Your task to perform on an android device: clear all cookies in the chrome app Image 0: 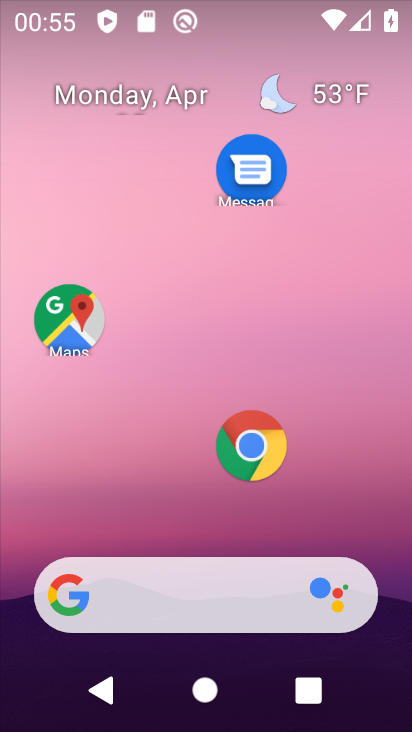
Step 0: drag from (181, 532) to (281, 112)
Your task to perform on an android device: clear all cookies in the chrome app Image 1: 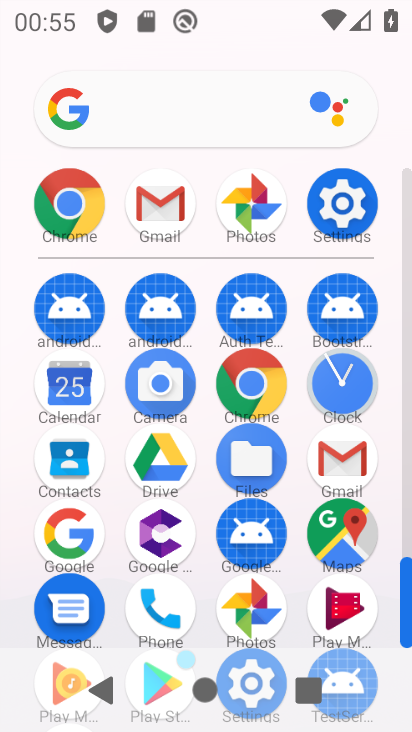
Step 1: click (214, 358)
Your task to perform on an android device: clear all cookies in the chrome app Image 2: 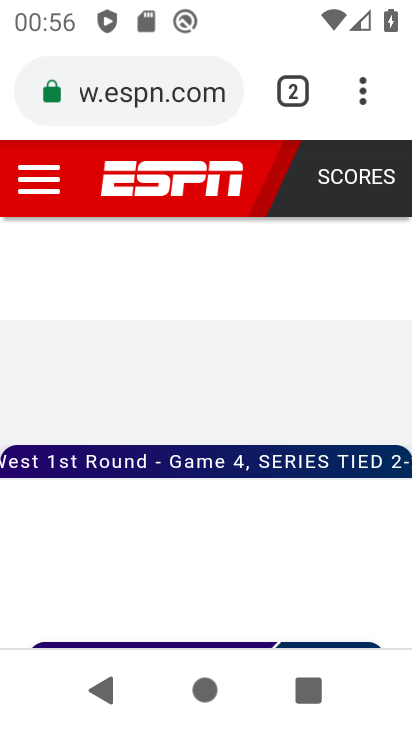
Step 2: click (367, 103)
Your task to perform on an android device: clear all cookies in the chrome app Image 3: 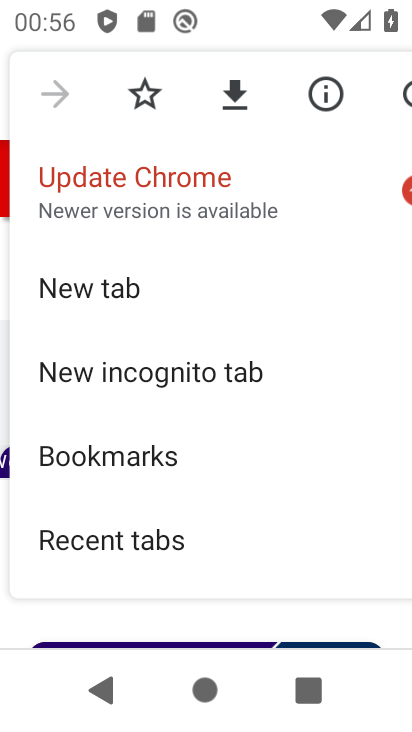
Step 3: drag from (185, 445) to (221, 200)
Your task to perform on an android device: clear all cookies in the chrome app Image 4: 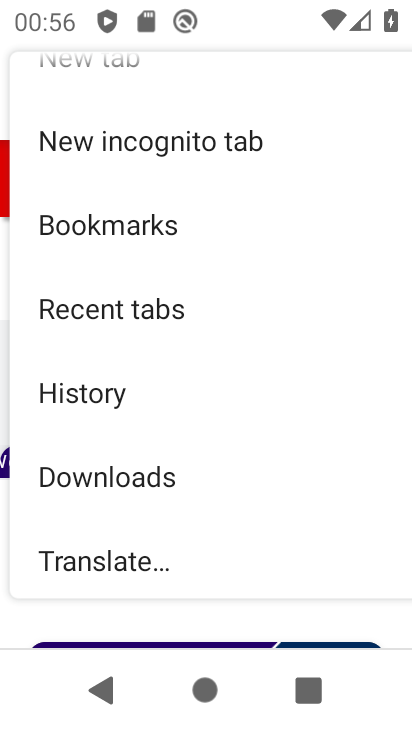
Step 4: drag from (155, 479) to (225, 159)
Your task to perform on an android device: clear all cookies in the chrome app Image 5: 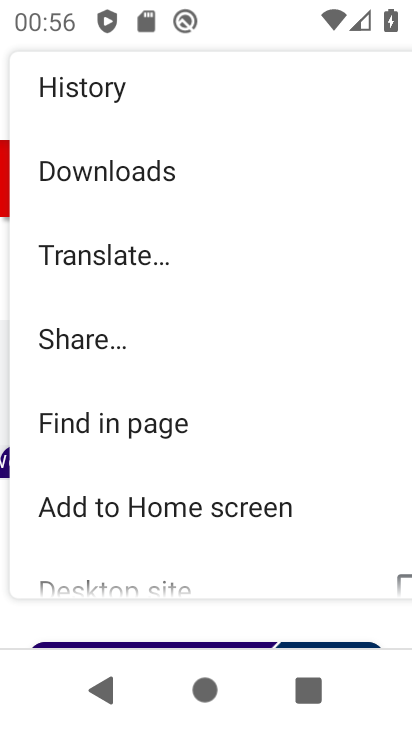
Step 5: drag from (169, 509) to (281, 86)
Your task to perform on an android device: clear all cookies in the chrome app Image 6: 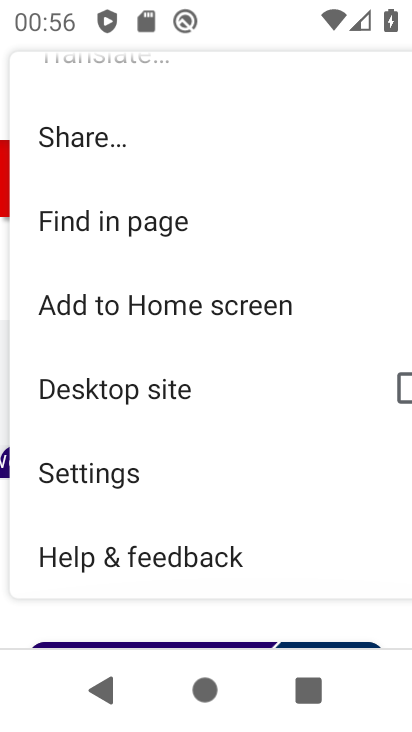
Step 6: drag from (275, 147) to (237, 618)
Your task to perform on an android device: clear all cookies in the chrome app Image 7: 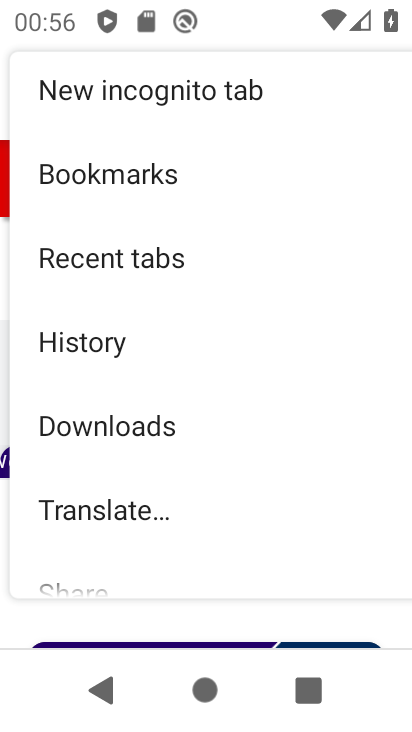
Step 7: drag from (220, 266) to (198, 536)
Your task to perform on an android device: clear all cookies in the chrome app Image 8: 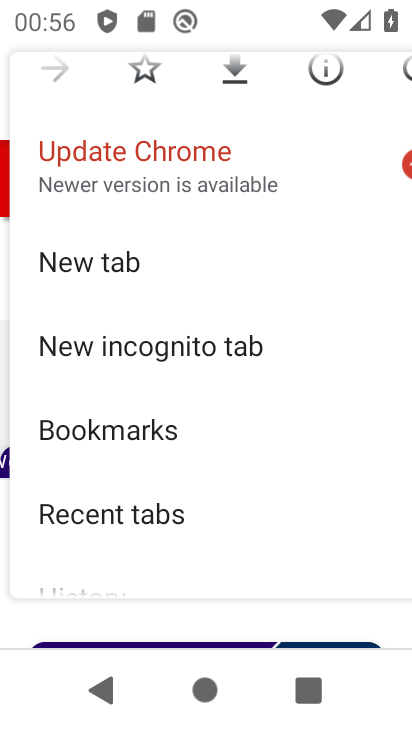
Step 8: drag from (197, 288) to (142, 554)
Your task to perform on an android device: clear all cookies in the chrome app Image 9: 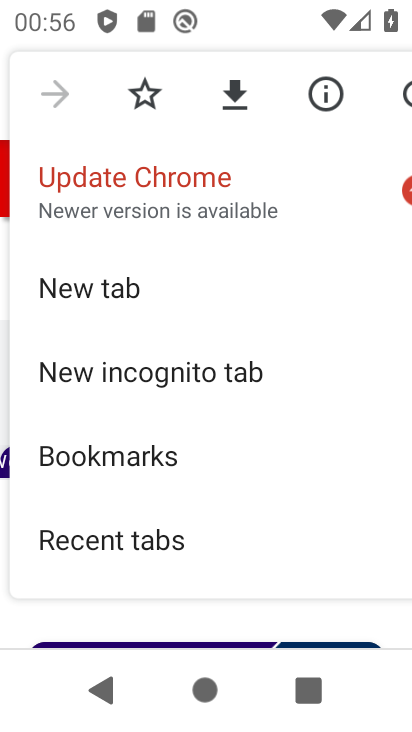
Step 9: drag from (158, 514) to (240, 248)
Your task to perform on an android device: clear all cookies in the chrome app Image 10: 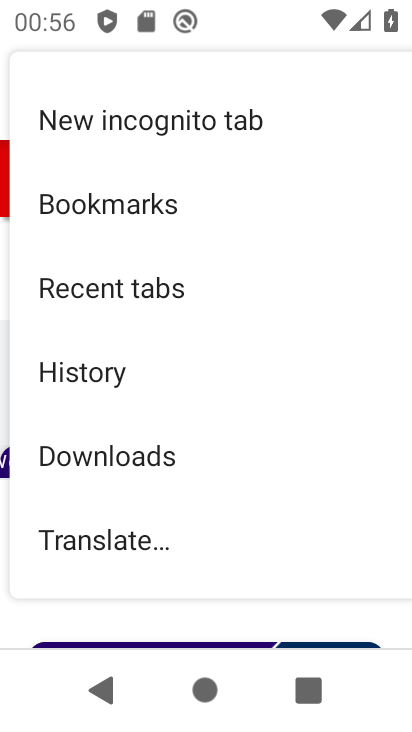
Step 10: click (157, 382)
Your task to perform on an android device: clear all cookies in the chrome app Image 11: 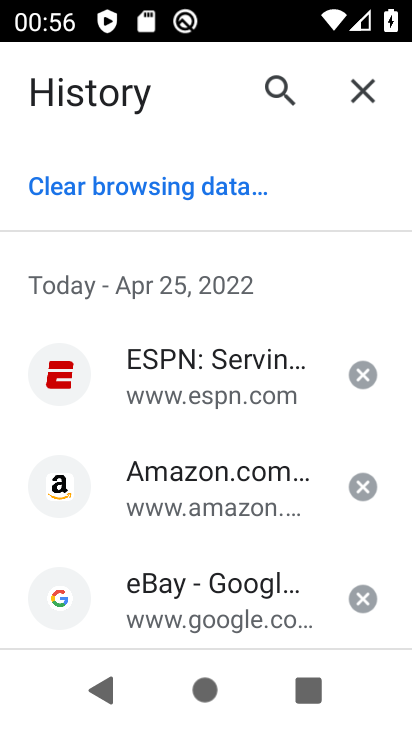
Step 11: click (185, 198)
Your task to perform on an android device: clear all cookies in the chrome app Image 12: 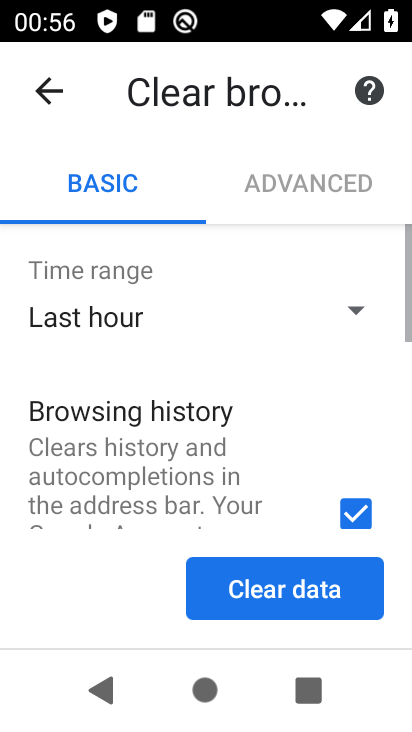
Step 12: drag from (173, 462) to (237, 277)
Your task to perform on an android device: clear all cookies in the chrome app Image 13: 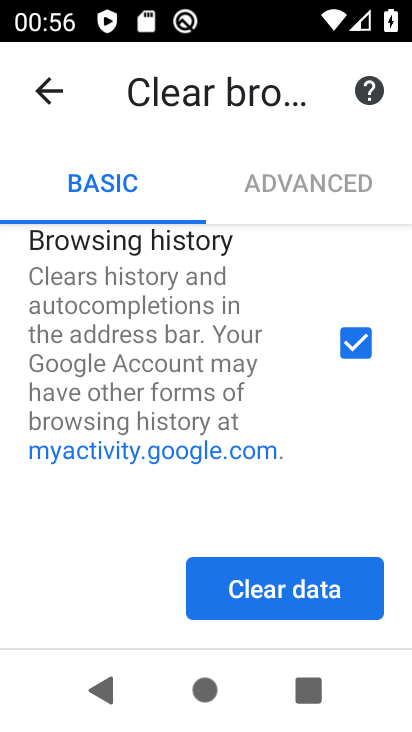
Step 13: click (308, 340)
Your task to perform on an android device: clear all cookies in the chrome app Image 14: 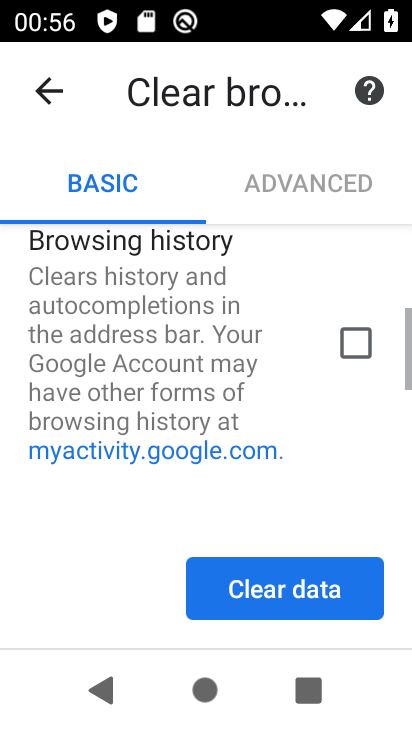
Step 14: drag from (207, 469) to (297, 147)
Your task to perform on an android device: clear all cookies in the chrome app Image 15: 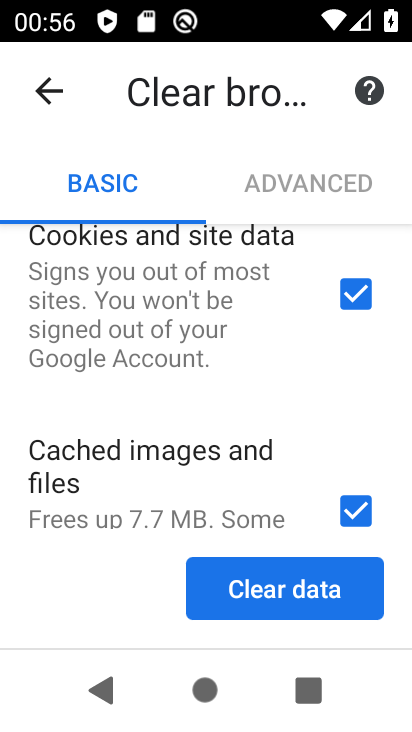
Step 15: click (257, 482)
Your task to perform on an android device: clear all cookies in the chrome app Image 16: 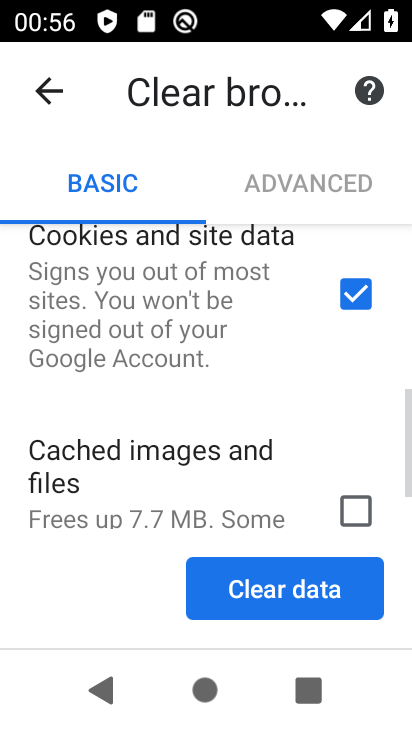
Step 16: click (284, 589)
Your task to perform on an android device: clear all cookies in the chrome app Image 17: 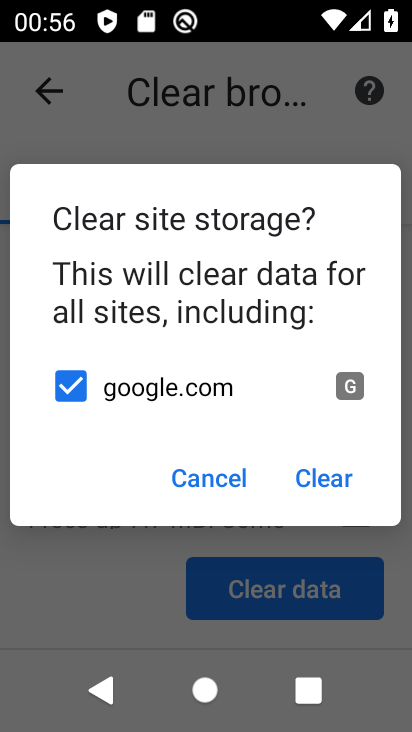
Step 17: click (327, 471)
Your task to perform on an android device: clear all cookies in the chrome app Image 18: 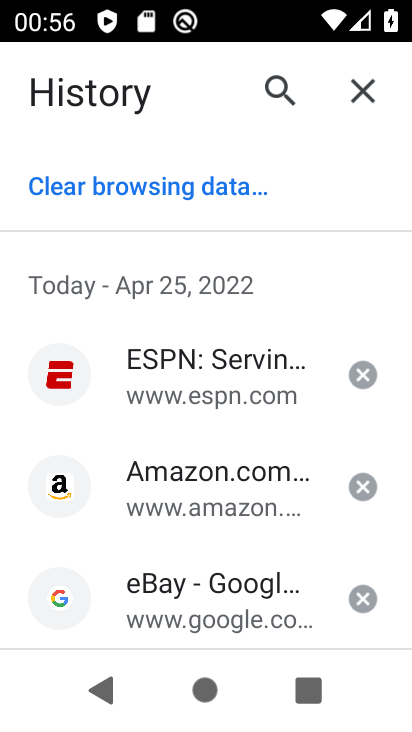
Step 18: task complete